Your task to perform on an android device: Open battery settings Image 0: 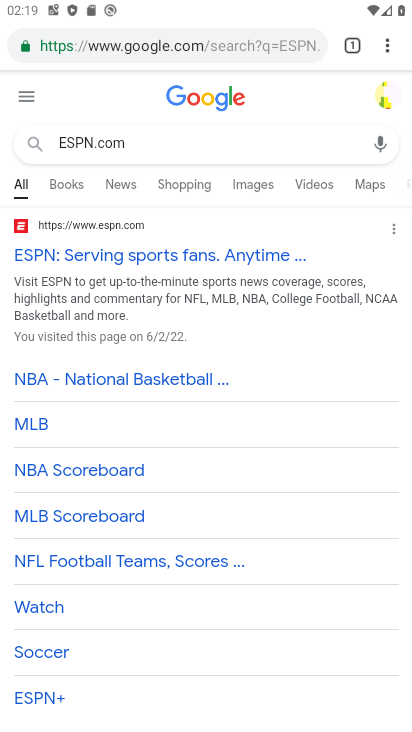
Step 0: press home button
Your task to perform on an android device: Open battery settings Image 1: 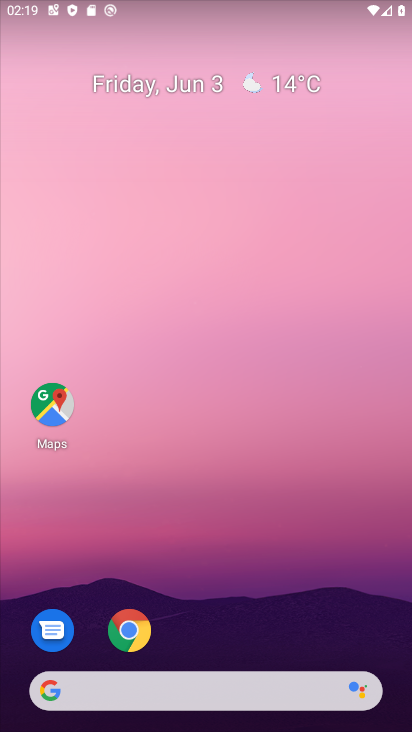
Step 1: drag from (402, 703) to (387, 64)
Your task to perform on an android device: Open battery settings Image 2: 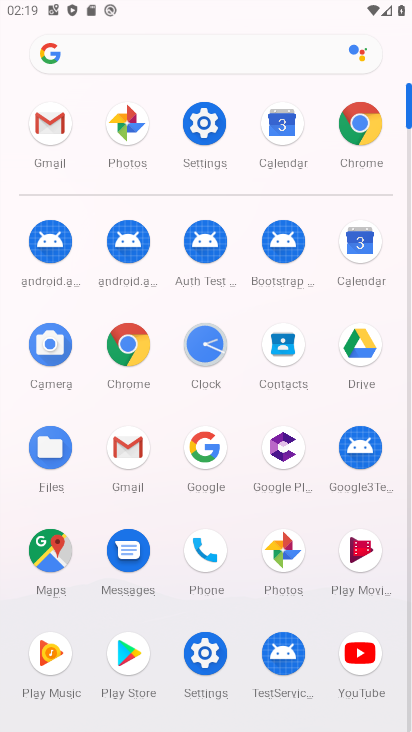
Step 2: click (204, 651)
Your task to perform on an android device: Open battery settings Image 3: 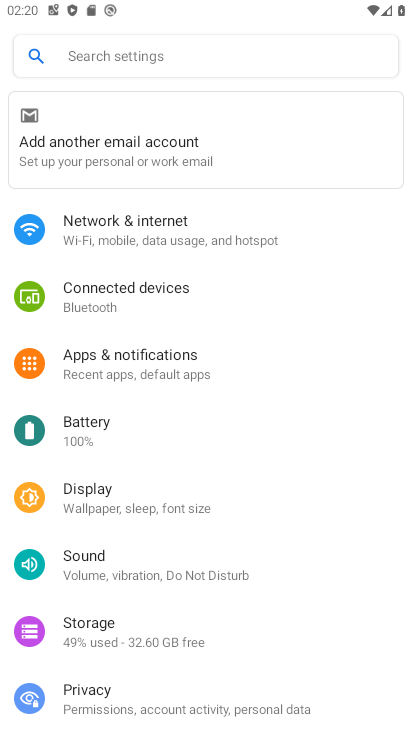
Step 3: click (97, 414)
Your task to perform on an android device: Open battery settings Image 4: 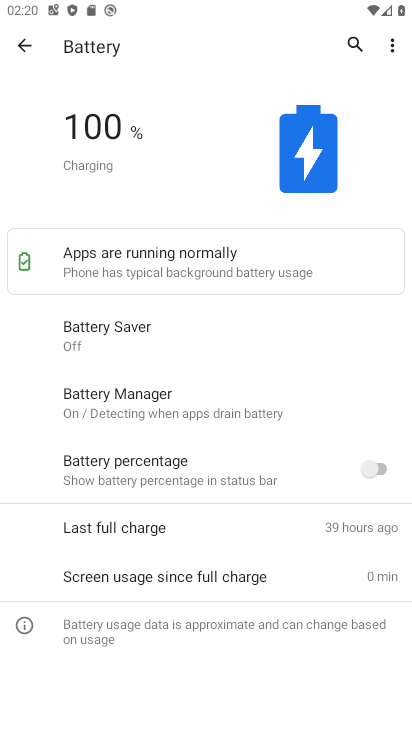
Step 4: task complete